Your task to perform on an android device: toggle data saver in the chrome app Image 0: 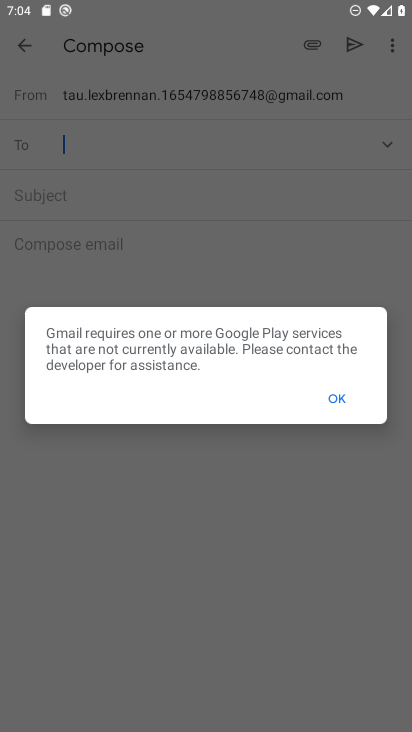
Step 0: drag from (294, 546) to (235, 278)
Your task to perform on an android device: toggle data saver in the chrome app Image 1: 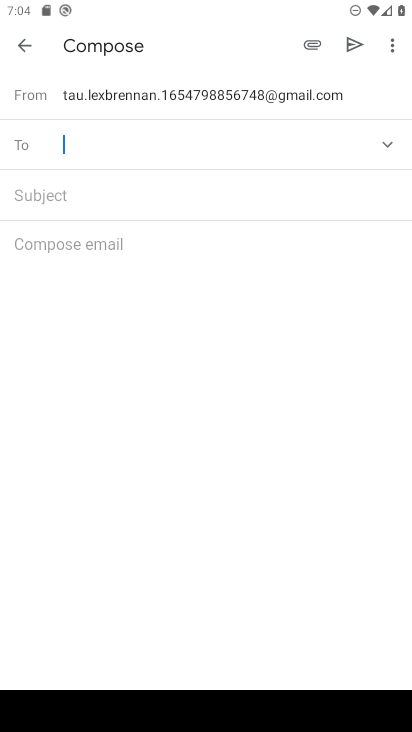
Step 1: press home button
Your task to perform on an android device: toggle data saver in the chrome app Image 2: 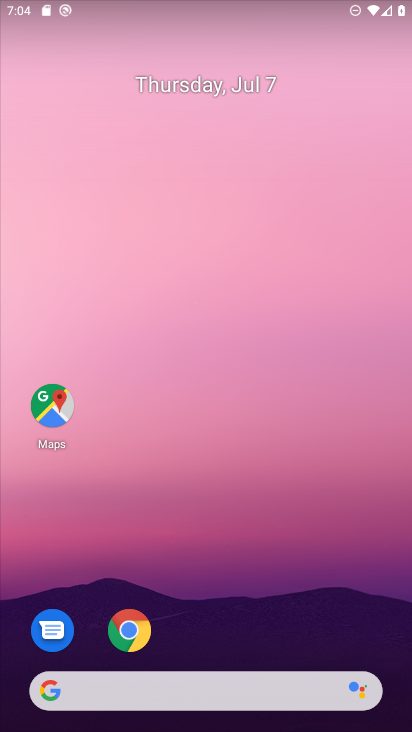
Step 2: drag from (304, 543) to (140, 132)
Your task to perform on an android device: toggle data saver in the chrome app Image 3: 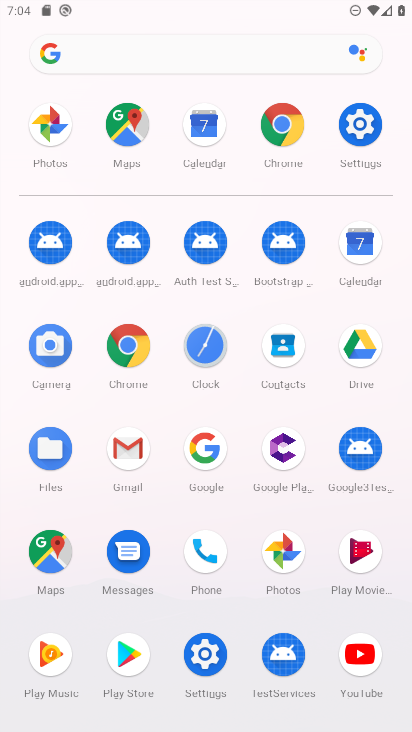
Step 3: click (285, 120)
Your task to perform on an android device: toggle data saver in the chrome app Image 4: 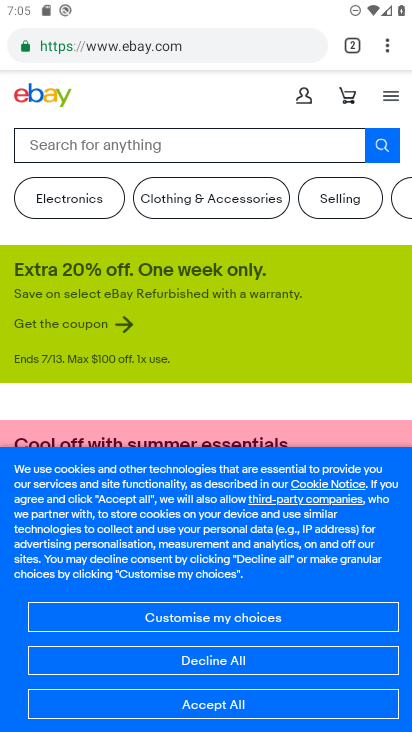
Step 4: click (389, 45)
Your task to perform on an android device: toggle data saver in the chrome app Image 5: 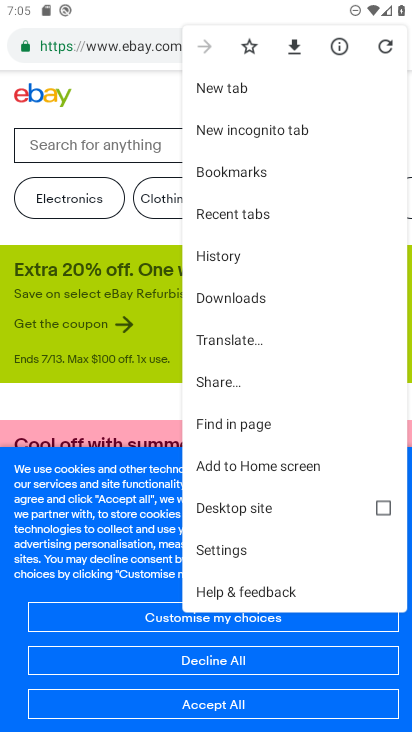
Step 5: click (234, 551)
Your task to perform on an android device: toggle data saver in the chrome app Image 6: 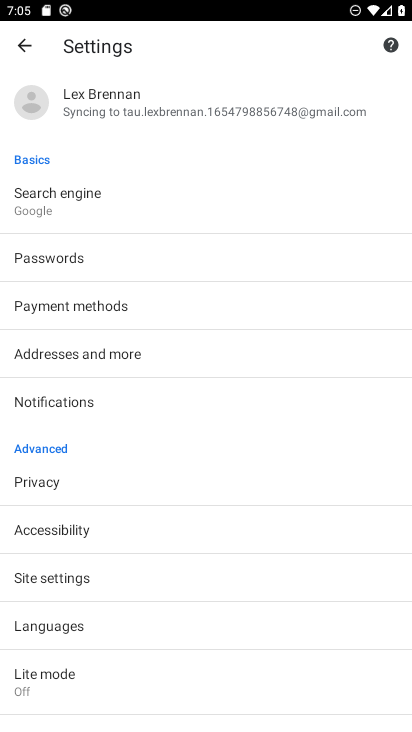
Step 6: click (50, 671)
Your task to perform on an android device: toggle data saver in the chrome app Image 7: 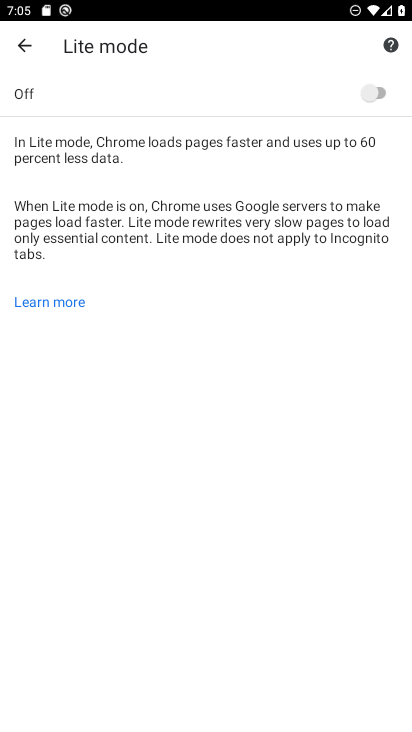
Step 7: click (371, 90)
Your task to perform on an android device: toggle data saver in the chrome app Image 8: 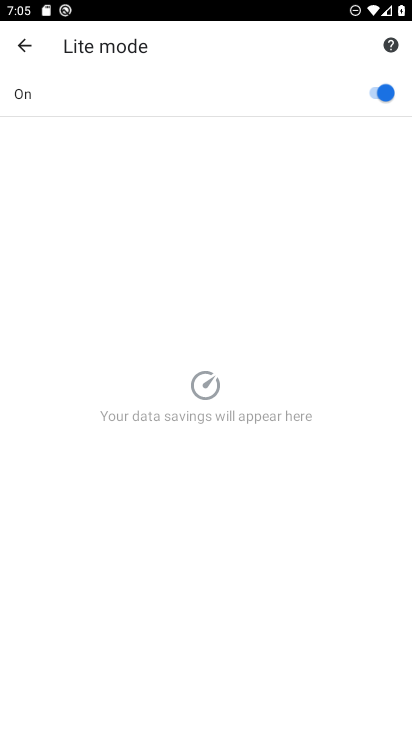
Step 8: task complete